Your task to perform on an android device: Open eBay Image 0: 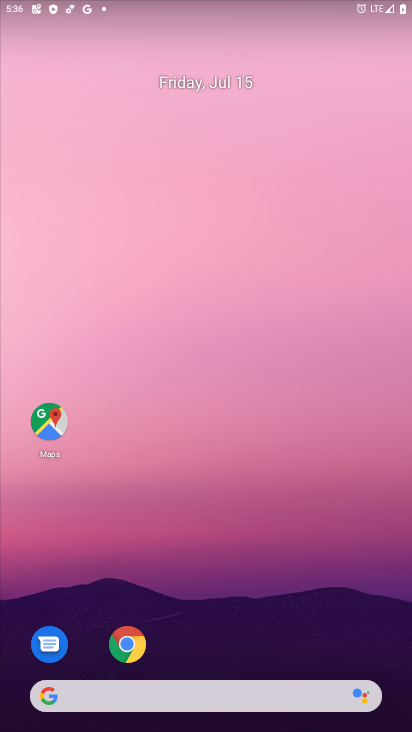
Step 0: drag from (195, 665) to (299, 23)
Your task to perform on an android device: Open eBay Image 1: 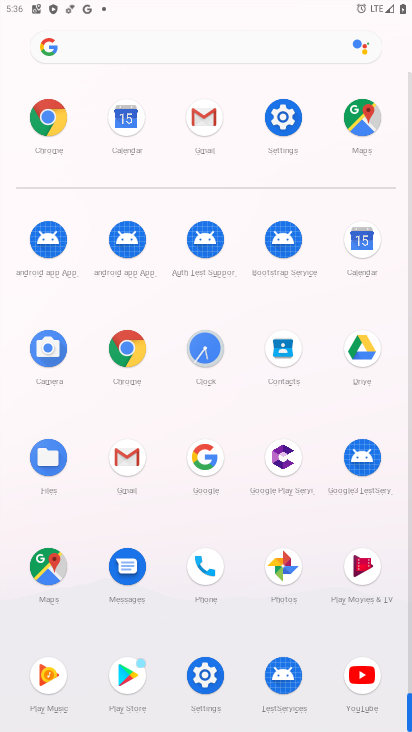
Step 1: click (130, 355)
Your task to perform on an android device: Open eBay Image 2: 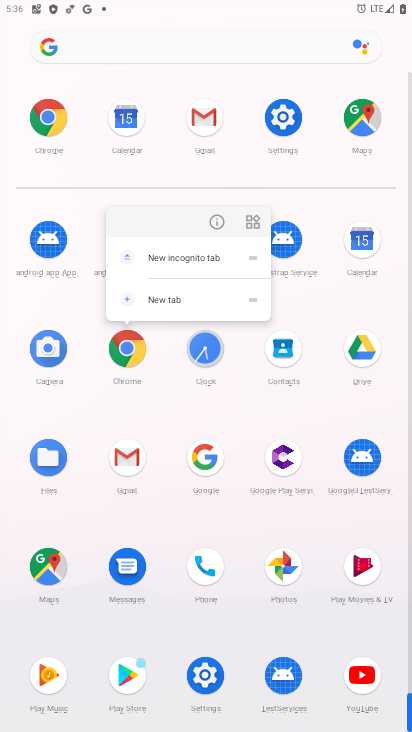
Step 2: click (130, 355)
Your task to perform on an android device: Open eBay Image 3: 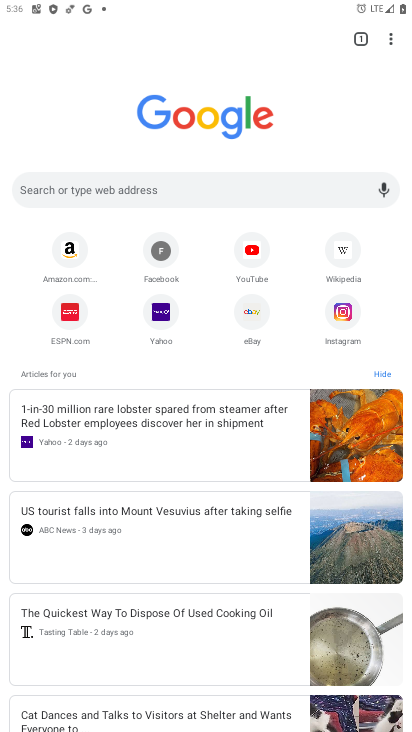
Step 3: click (259, 303)
Your task to perform on an android device: Open eBay Image 4: 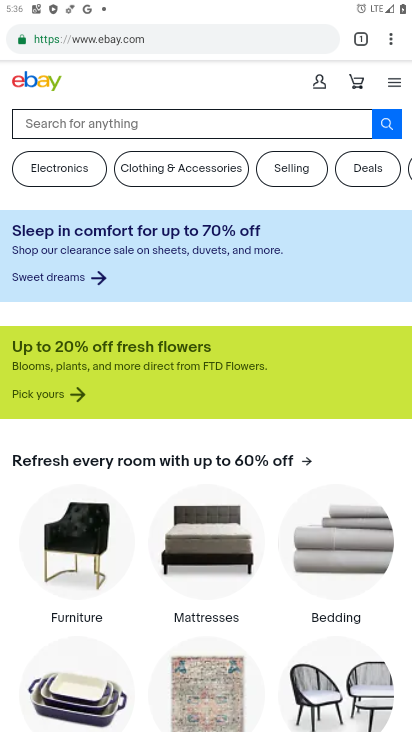
Step 4: drag from (188, 411) to (174, 4)
Your task to perform on an android device: Open eBay Image 5: 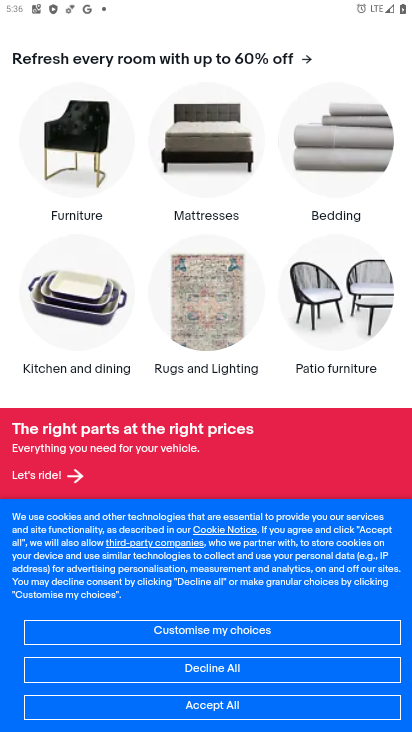
Step 5: click (204, 700)
Your task to perform on an android device: Open eBay Image 6: 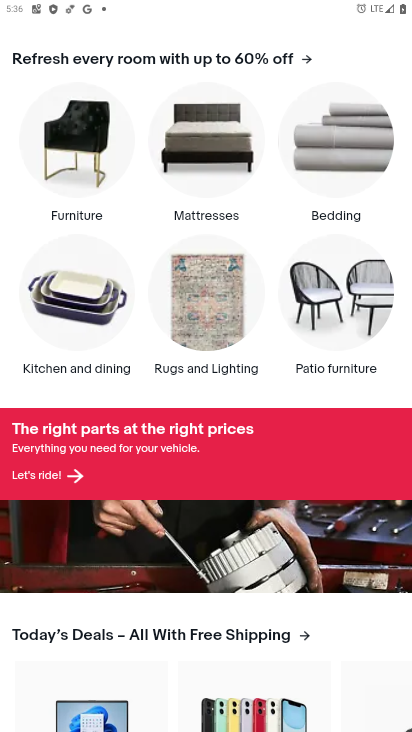
Step 6: task complete